Your task to perform on an android device: all mails in gmail Image 0: 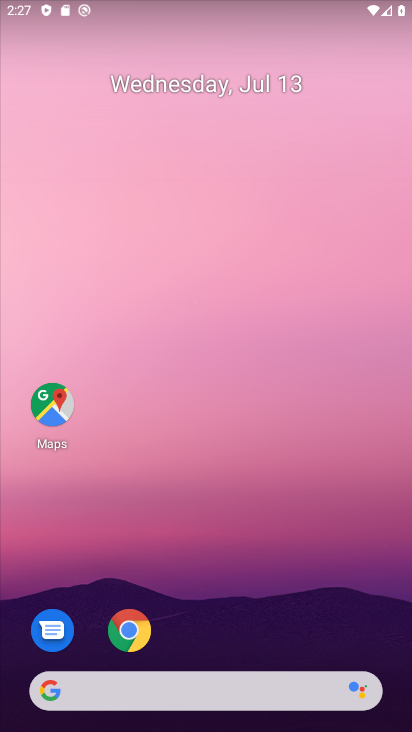
Step 0: drag from (321, 615) to (236, 144)
Your task to perform on an android device: all mails in gmail Image 1: 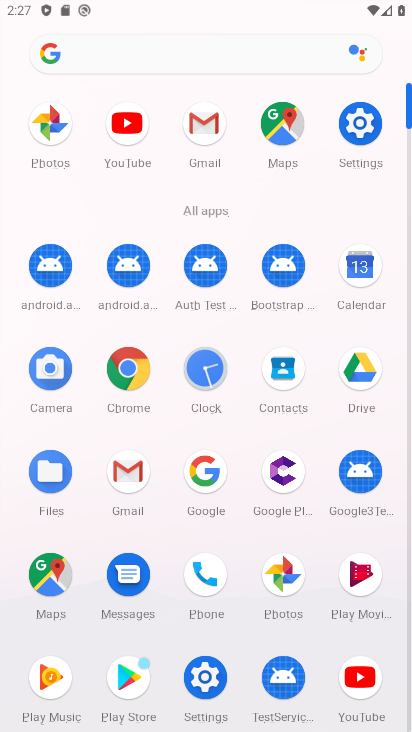
Step 1: click (196, 126)
Your task to perform on an android device: all mails in gmail Image 2: 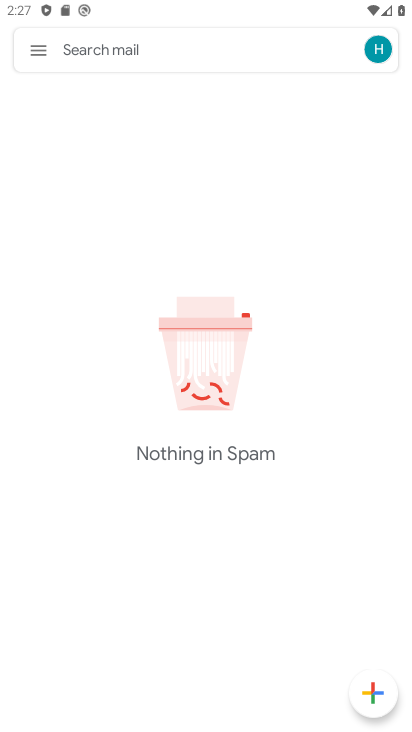
Step 2: click (32, 50)
Your task to perform on an android device: all mails in gmail Image 3: 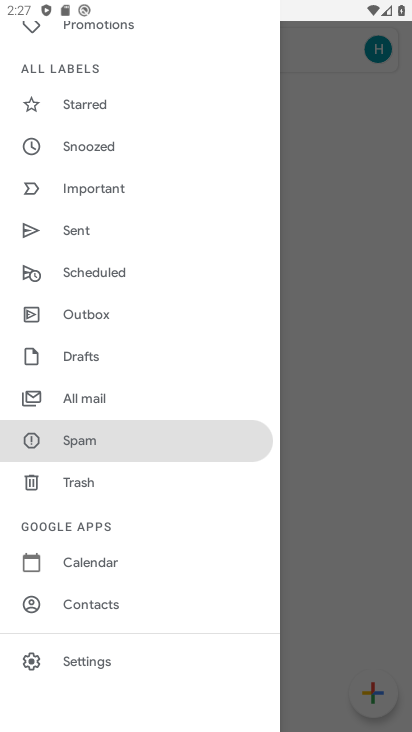
Step 3: click (156, 399)
Your task to perform on an android device: all mails in gmail Image 4: 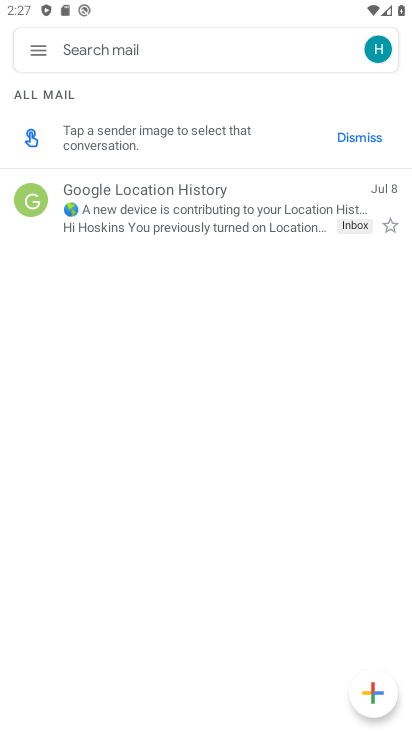
Step 4: task complete